Your task to perform on an android device: View the shopping cart on amazon.com. Add lg ultragear to the cart on amazon.com Image 0: 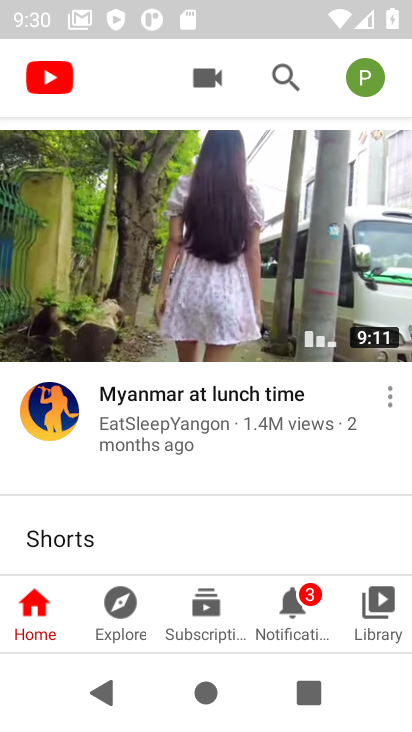
Step 0: press home button
Your task to perform on an android device: View the shopping cart on amazon.com. Add lg ultragear to the cart on amazon.com Image 1: 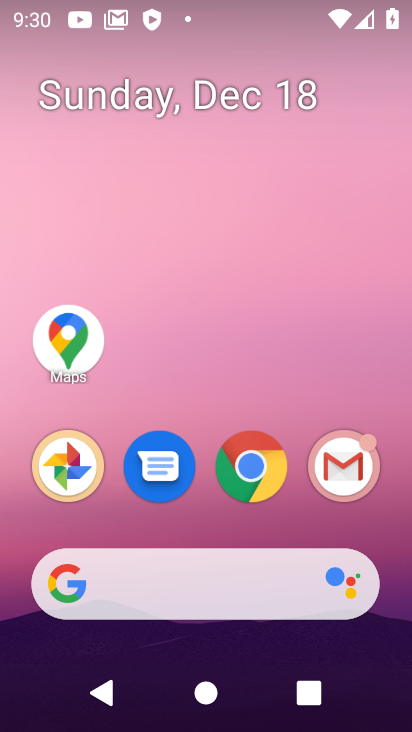
Step 1: click (261, 461)
Your task to perform on an android device: View the shopping cart on amazon.com. Add lg ultragear to the cart on amazon.com Image 2: 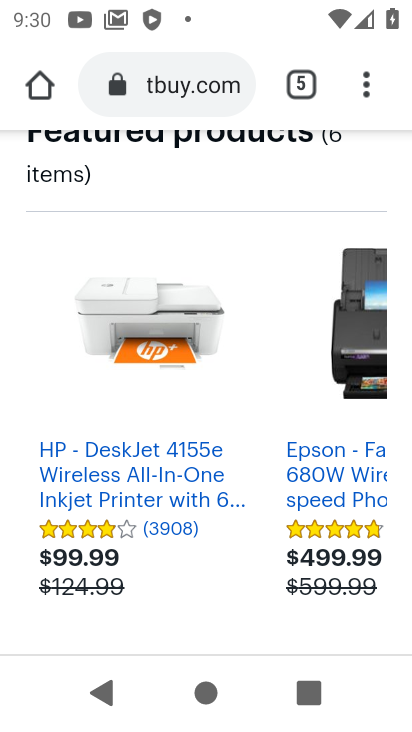
Step 2: click (181, 87)
Your task to perform on an android device: View the shopping cart on amazon.com. Add lg ultragear to the cart on amazon.com Image 3: 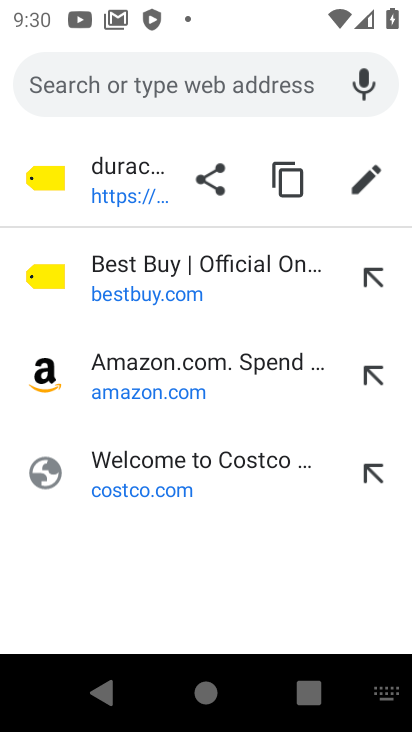
Step 3: click (153, 376)
Your task to perform on an android device: View the shopping cart on amazon.com. Add lg ultragear to the cart on amazon.com Image 4: 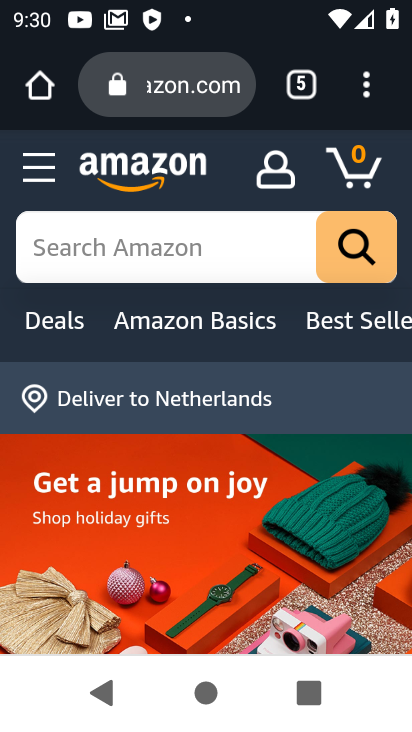
Step 4: click (182, 259)
Your task to perform on an android device: View the shopping cart on amazon.com. Add lg ultragear to the cart on amazon.com Image 5: 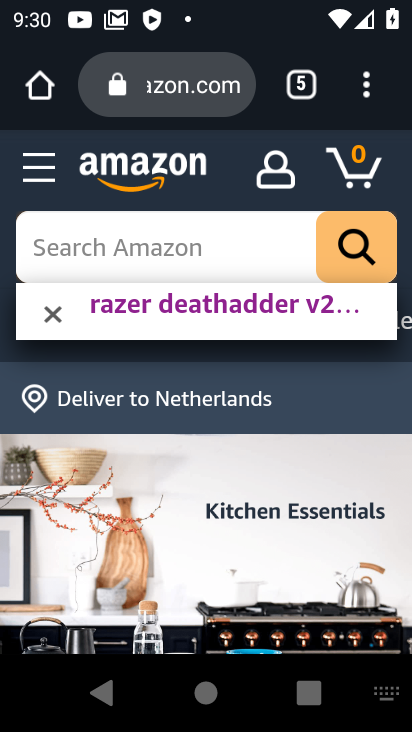
Step 5: type "lg ultragear"
Your task to perform on an android device: View the shopping cart on amazon.com. Add lg ultragear to the cart on amazon.com Image 6: 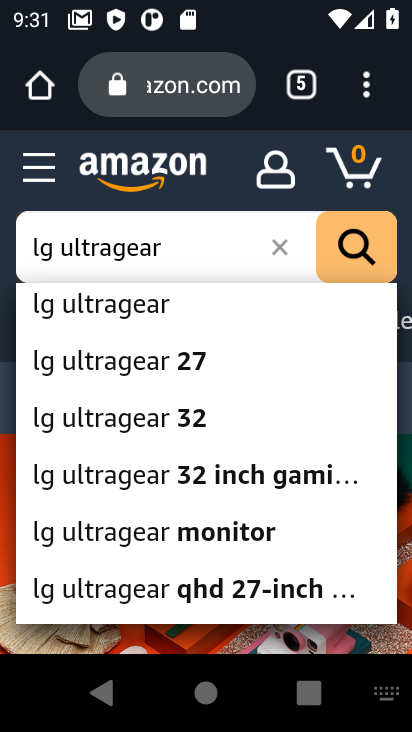
Step 6: click (100, 305)
Your task to perform on an android device: View the shopping cart on amazon.com. Add lg ultragear to the cart on amazon.com Image 7: 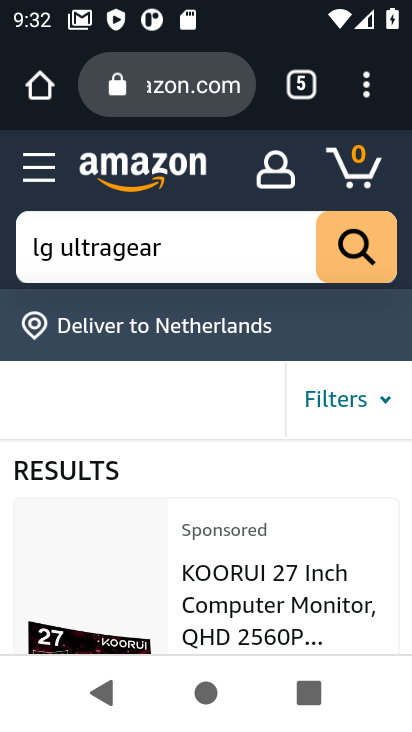
Step 7: drag from (333, 596) to (296, 365)
Your task to perform on an android device: View the shopping cart on amazon.com. Add lg ultragear to the cart on amazon.com Image 8: 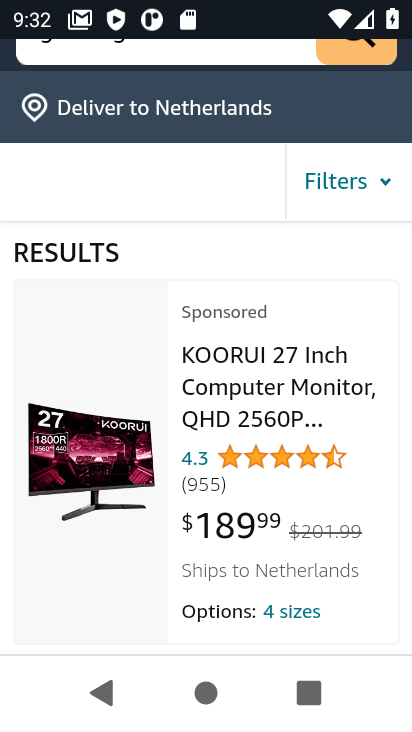
Step 8: click (316, 386)
Your task to perform on an android device: View the shopping cart on amazon.com. Add lg ultragear to the cart on amazon.com Image 9: 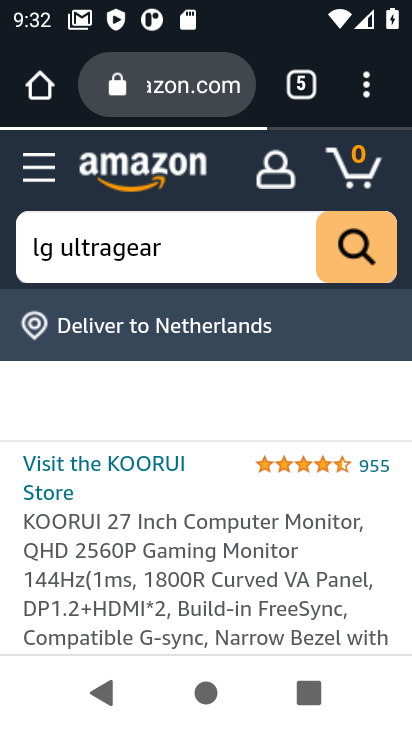
Step 9: drag from (281, 596) to (282, 127)
Your task to perform on an android device: View the shopping cart on amazon.com. Add lg ultragear to the cart on amazon.com Image 10: 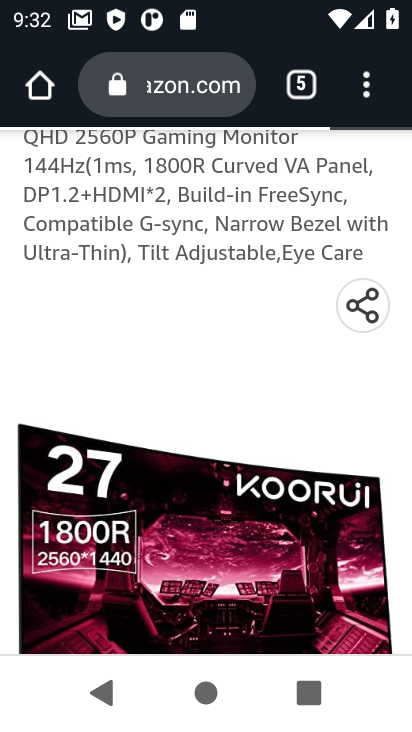
Step 10: drag from (261, 580) to (230, 121)
Your task to perform on an android device: View the shopping cart on amazon.com. Add lg ultragear to the cart on amazon.com Image 11: 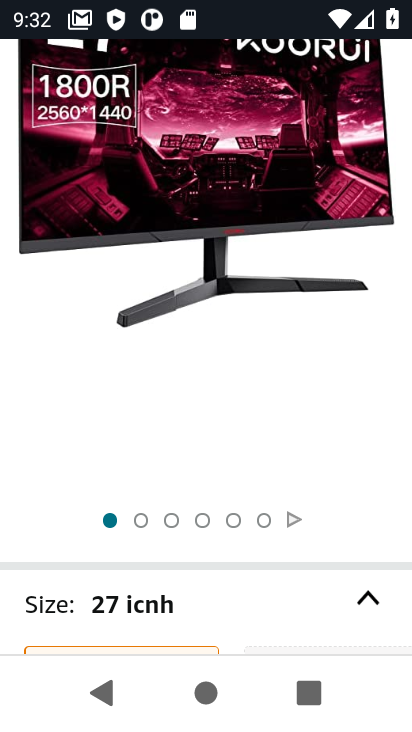
Step 11: drag from (261, 611) to (268, 108)
Your task to perform on an android device: View the shopping cart on amazon.com. Add lg ultragear to the cart on amazon.com Image 12: 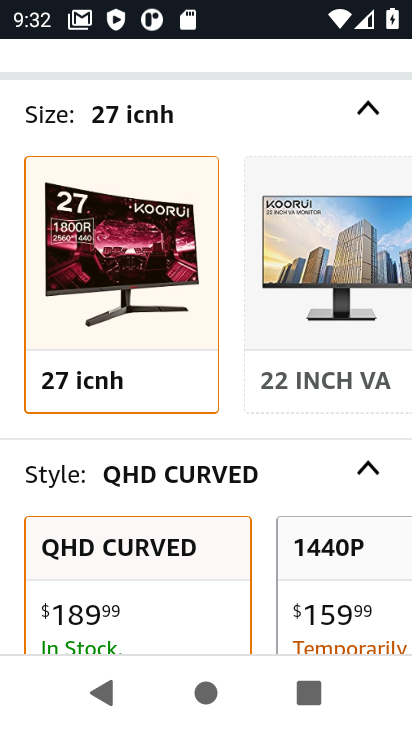
Step 12: drag from (264, 621) to (268, 126)
Your task to perform on an android device: View the shopping cart on amazon.com. Add lg ultragear to the cart on amazon.com Image 13: 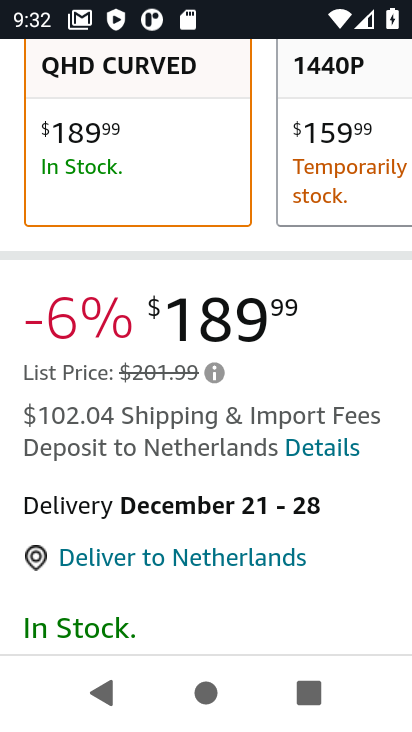
Step 13: drag from (279, 612) to (274, 148)
Your task to perform on an android device: View the shopping cart on amazon.com. Add lg ultragear to the cart on amazon.com Image 14: 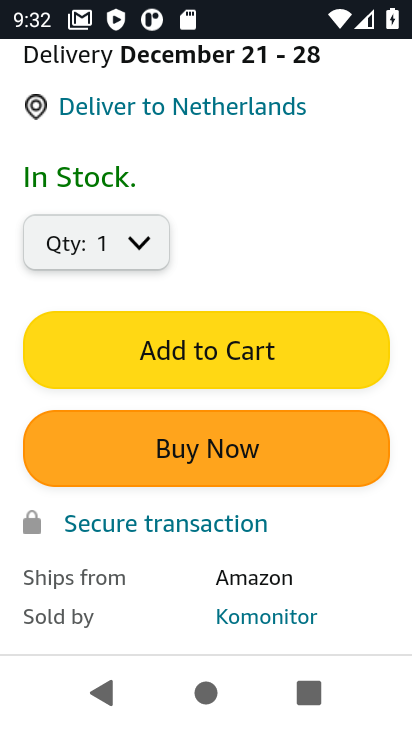
Step 14: click (221, 352)
Your task to perform on an android device: View the shopping cart on amazon.com. Add lg ultragear to the cart on amazon.com Image 15: 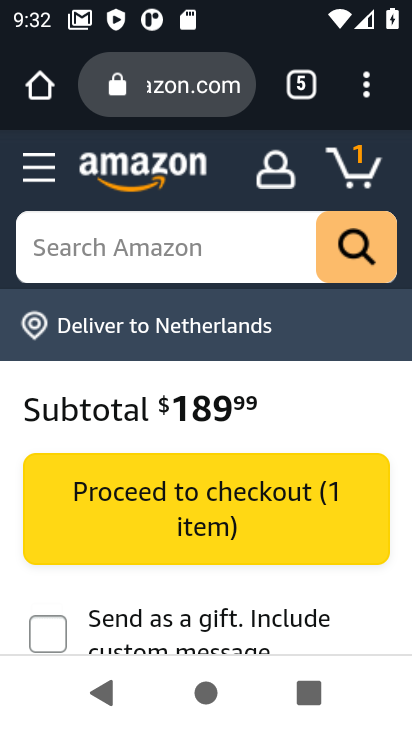
Step 15: task complete